Your task to perform on an android device: Open Google Chrome and open the bookmarks view Image 0: 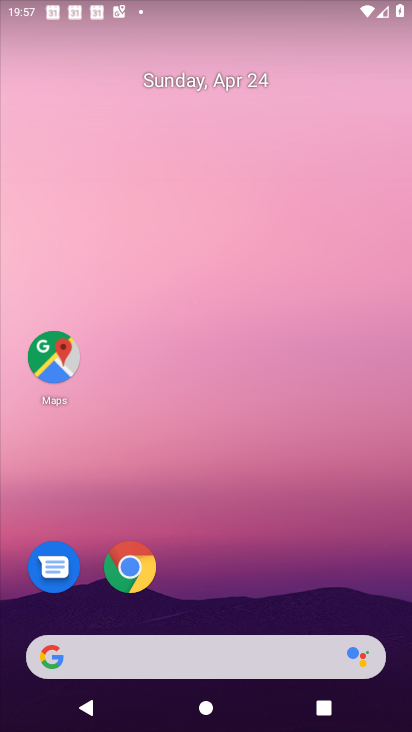
Step 0: drag from (291, 671) to (206, 182)
Your task to perform on an android device: Open Google Chrome and open the bookmarks view Image 1: 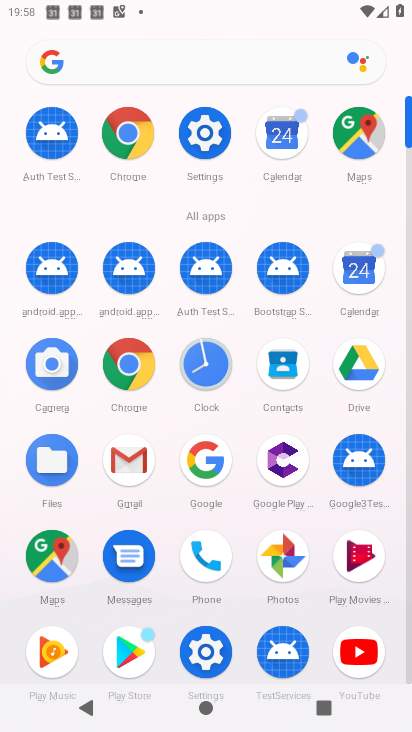
Step 1: click (124, 378)
Your task to perform on an android device: Open Google Chrome and open the bookmarks view Image 2: 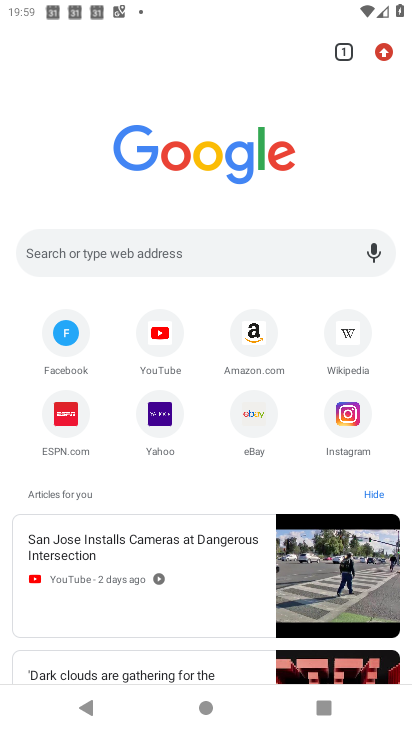
Step 2: click (378, 46)
Your task to perform on an android device: Open Google Chrome and open the bookmarks view Image 3: 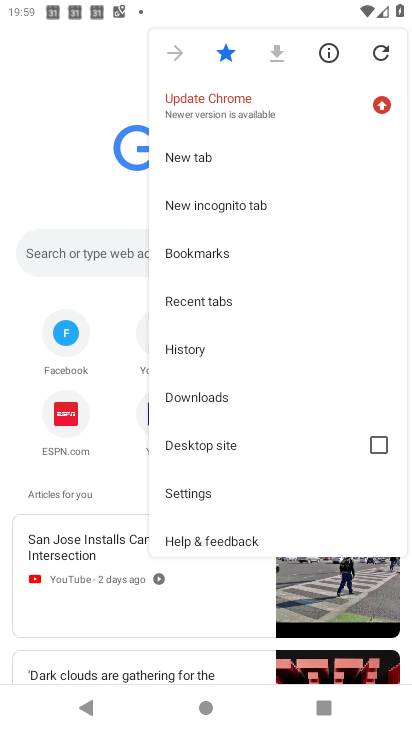
Step 3: click (194, 250)
Your task to perform on an android device: Open Google Chrome and open the bookmarks view Image 4: 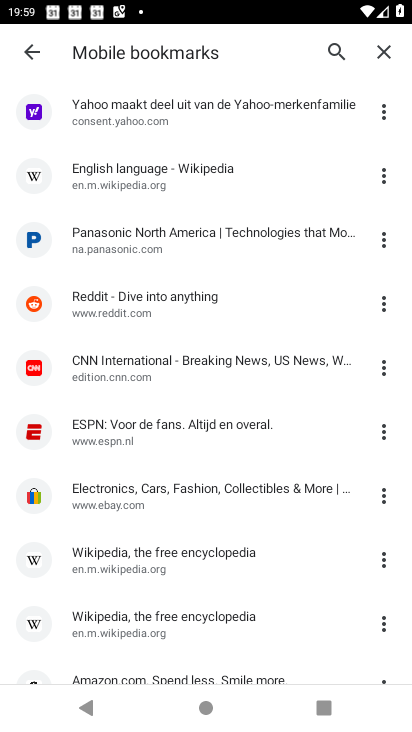
Step 4: task complete